Your task to perform on an android device: turn vacation reply on in the gmail app Image 0: 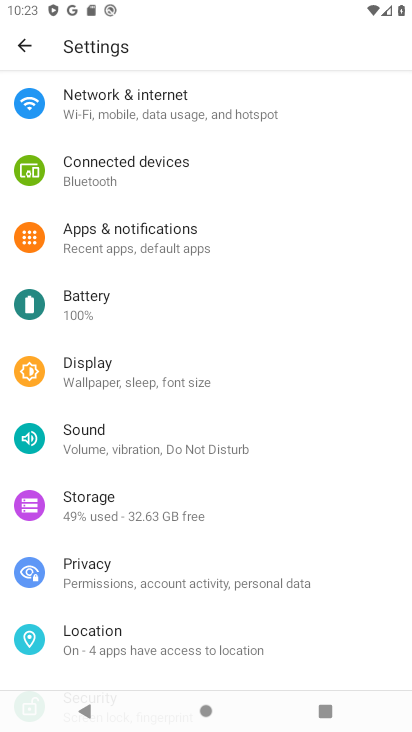
Step 0: click (13, 41)
Your task to perform on an android device: turn vacation reply on in the gmail app Image 1: 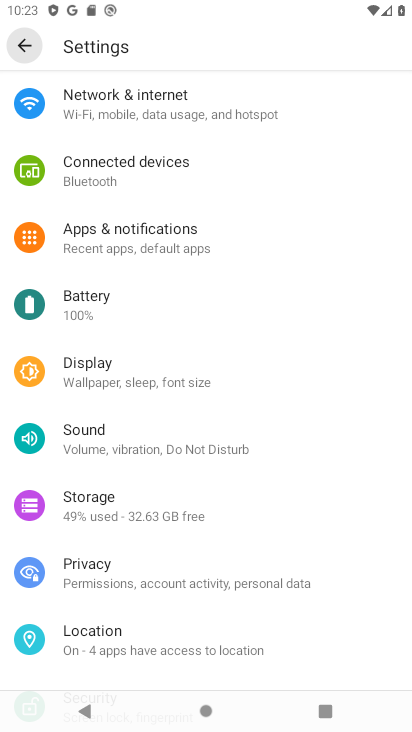
Step 1: click (14, 42)
Your task to perform on an android device: turn vacation reply on in the gmail app Image 2: 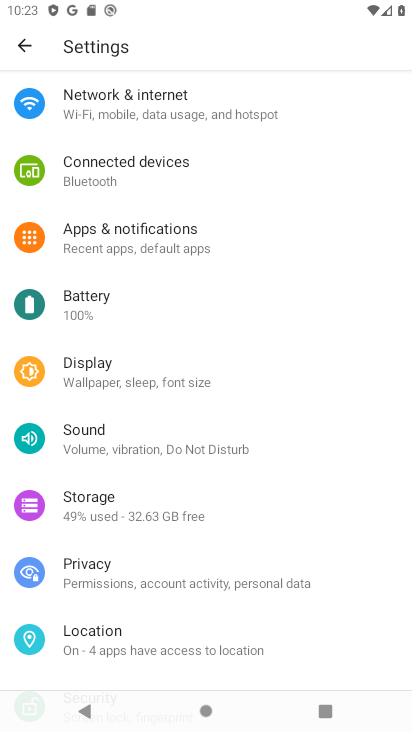
Step 2: click (15, 42)
Your task to perform on an android device: turn vacation reply on in the gmail app Image 3: 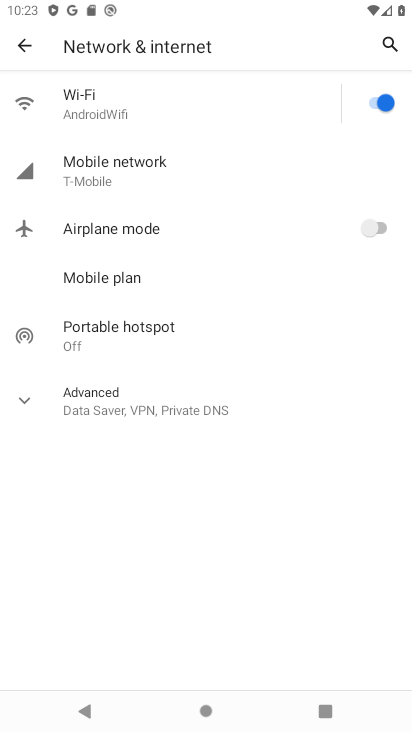
Step 3: click (22, 52)
Your task to perform on an android device: turn vacation reply on in the gmail app Image 4: 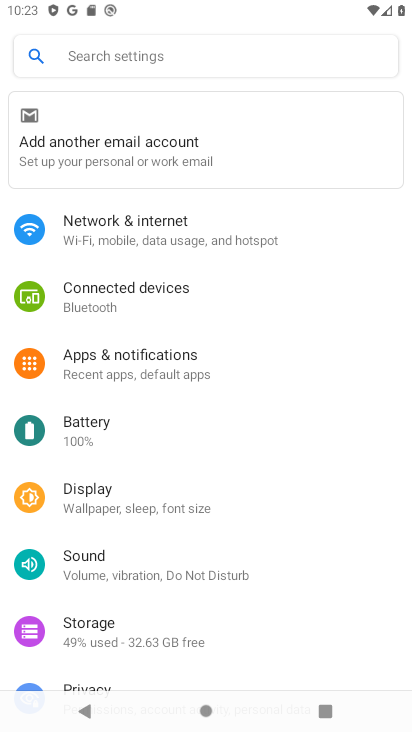
Step 4: press home button
Your task to perform on an android device: turn vacation reply on in the gmail app Image 5: 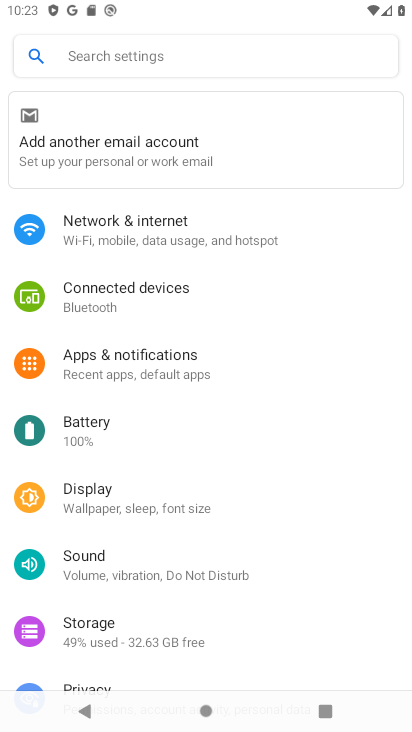
Step 5: press home button
Your task to perform on an android device: turn vacation reply on in the gmail app Image 6: 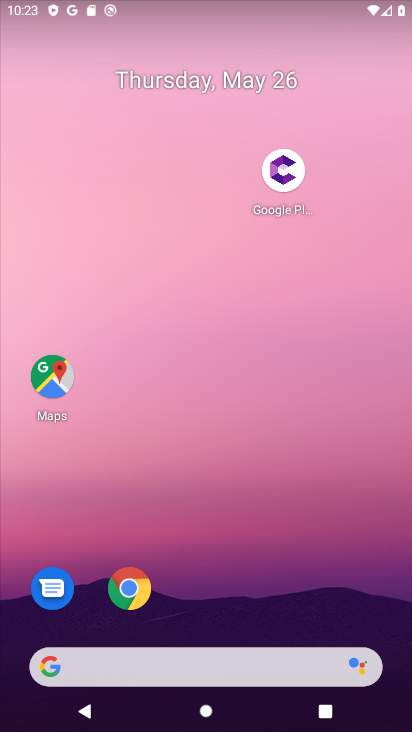
Step 6: drag from (257, 680) to (145, 125)
Your task to perform on an android device: turn vacation reply on in the gmail app Image 7: 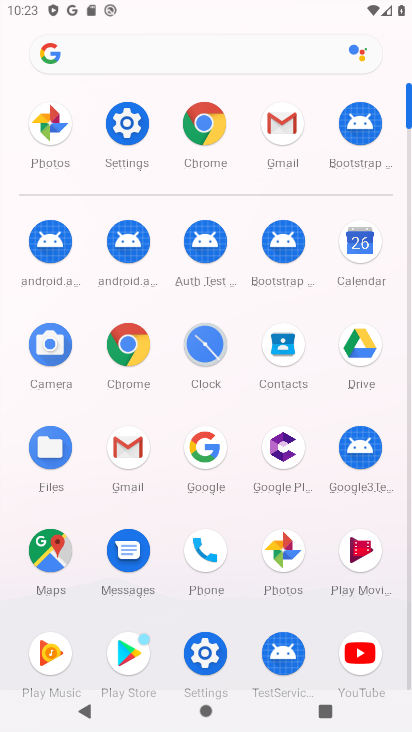
Step 7: click (280, 125)
Your task to perform on an android device: turn vacation reply on in the gmail app Image 8: 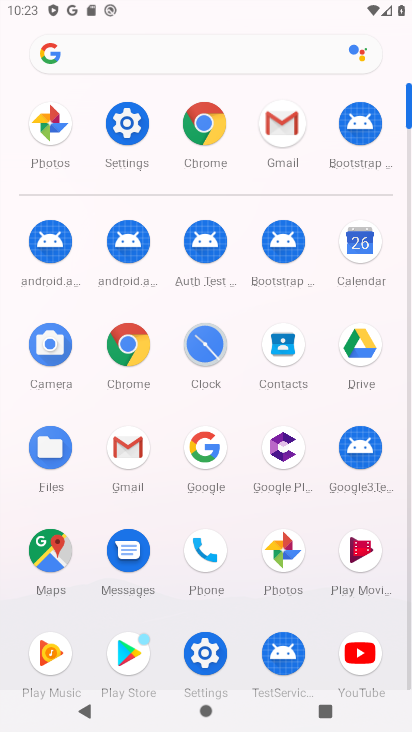
Step 8: click (280, 125)
Your task to perform on an android device: turn vacation reply on in the gmail app Image 9: 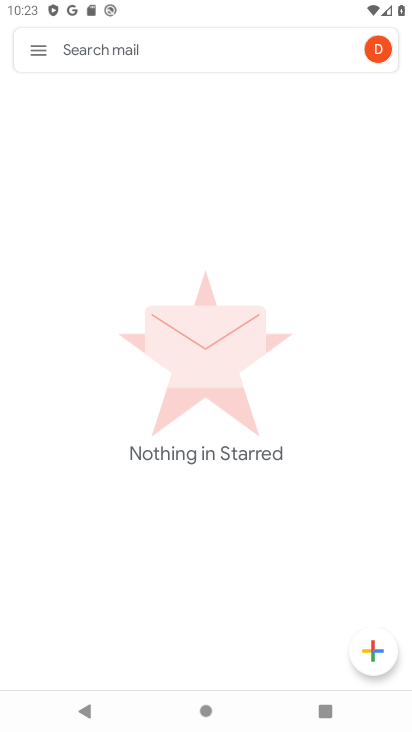
Step 9: click (25, 56)
Your task to perform on an android device: turn vacation reply on in the gmail app Image 10: 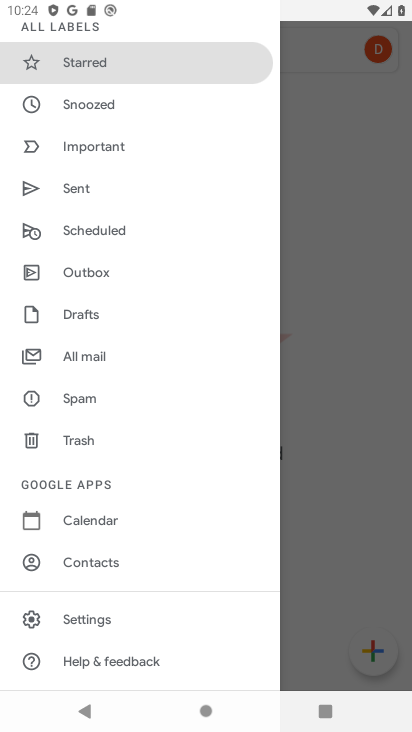
Step 10: click (93, 612)
Your task to perform on an android device: turn vacation reply on in the gmail app Image 11: 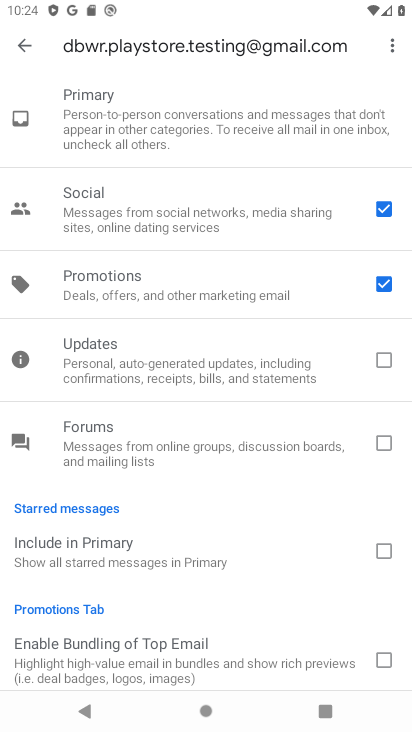
Step 11: click (16, 55)
Your task to perform on an android device: turn vacation reply on in the gmail app Image 12: 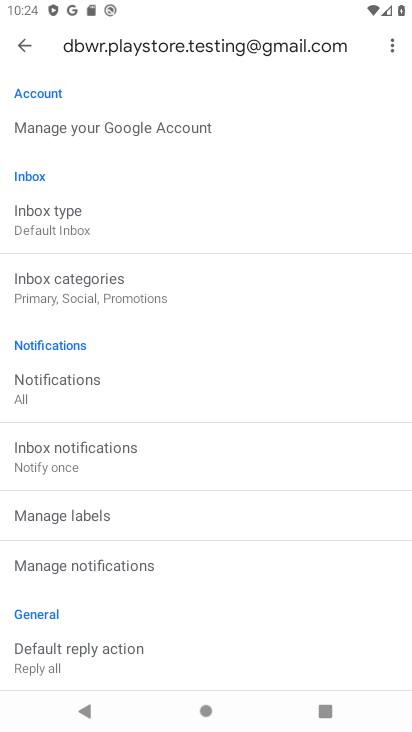
Step 12: drag from (137, 532) to (58, 212)
Your task to perform on an android device: turn vacation reply on in the gmail app Image 13: 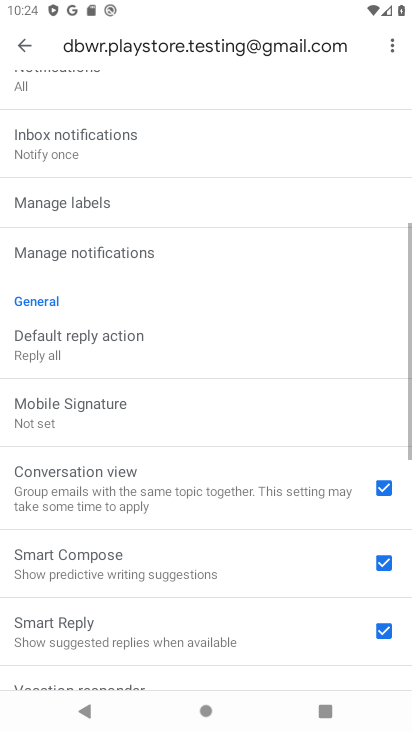
Step 13: drag from (88, 491) to (78, 232)
Your task to perform on an android device: turn vacation reply on in the gmail app Image 14: 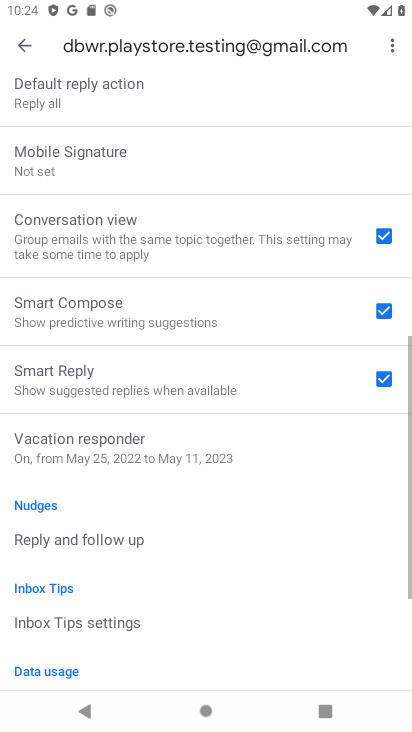
Step 14: drag from (113, 452) to (125, 238)
Your task to perform on an android device: turn vacation reply on in the gmail app Image 15: 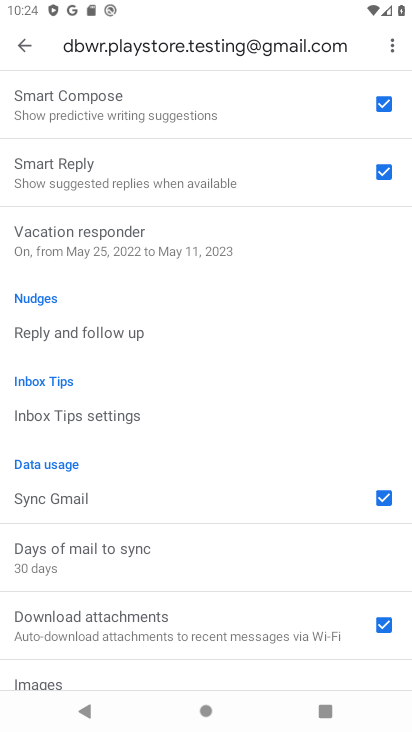
Step 15: click (153, 243)
Your task to perform on an android device: turn vacation reply on in the gmail app Image 16: 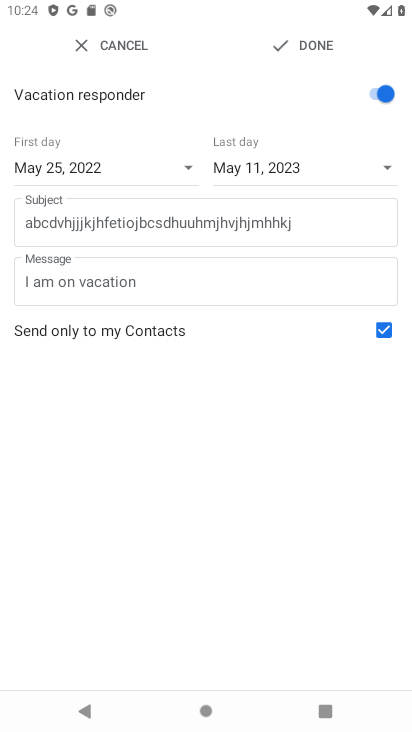
Step 16: task complete